Your task to perform on an android device: turn off notifications in google photos Image 0: 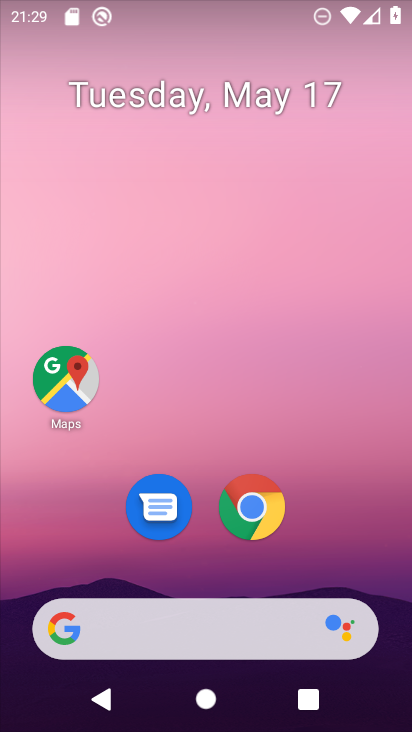
Step 0: drag from (357, 567) to (320, 15)
Your task to perform on an android device: turn off notifications in google photos Image 1: 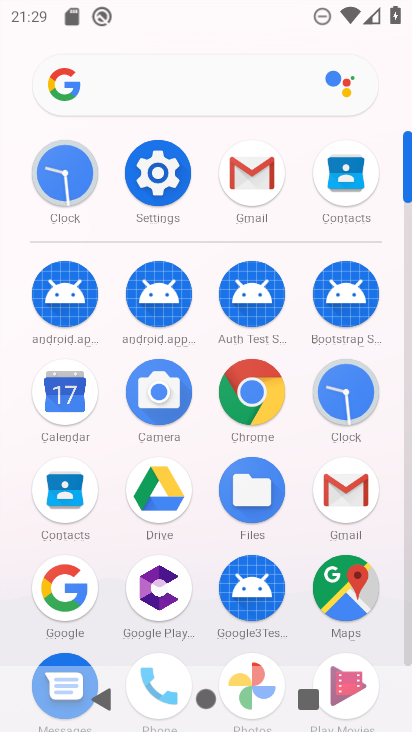
Step 1: drag from (405, 476) to (404, 434)
Your task to perform on an android device: turn off notifications in google photos Image 2: 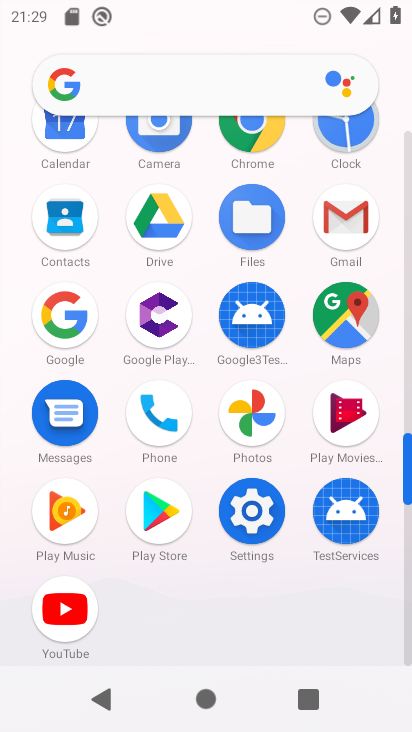
Step 2: click (255, 427)
Your task to perform on an android device: turn off notifications in google photos Image 3: 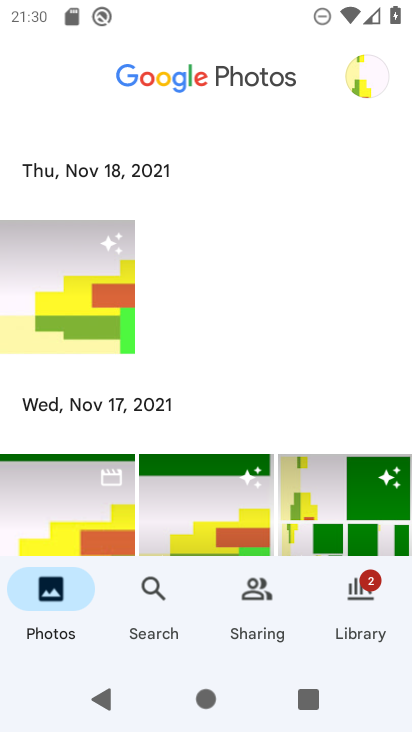
Step 3: click (372, 89)
Your task to perform on an android device: turn off notifications in google photos Image 4: 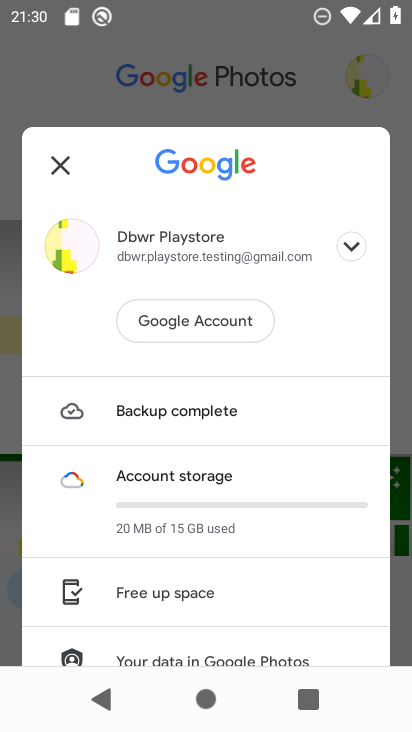
Step 4: drag from (195, 582) to (190, 301)
Your task to perform on an android device: turn off notifications in google photos Image 5: 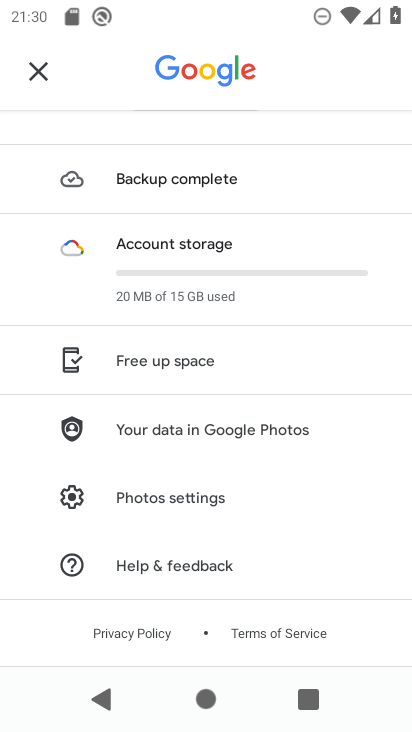
Step 5: click (165, 500)
Your task to perform on an android device: turn off notifications in google photos Image 6: 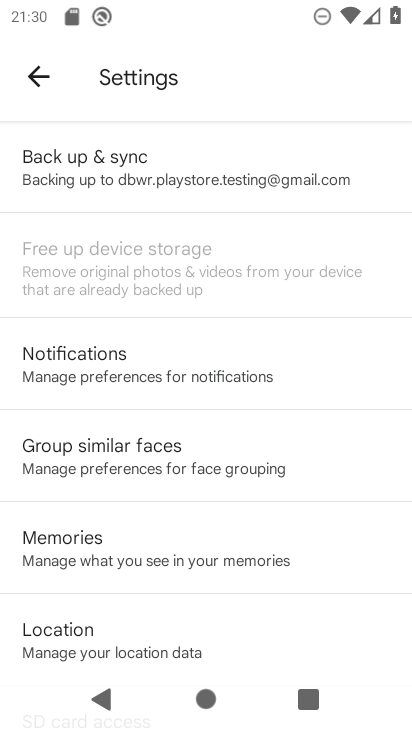
Step 6: click (78, 379)
Your task to perform on an android device: turn off notifications in google photos Image 7: 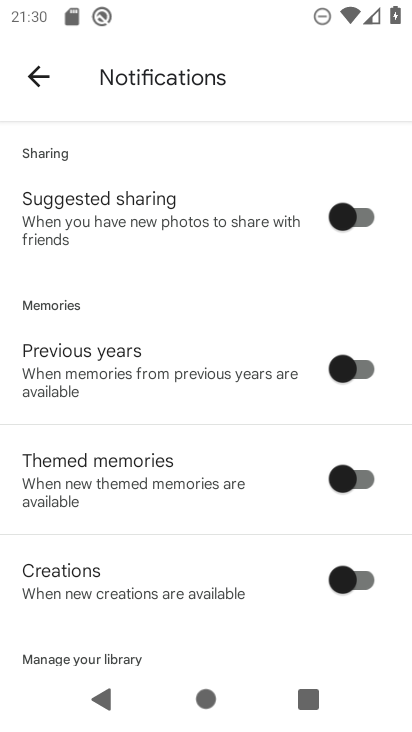
Step 7: drag from (122, 503) to (147, 189)
Your task to perform on an android device: turn off notifications in google photos Image 8: 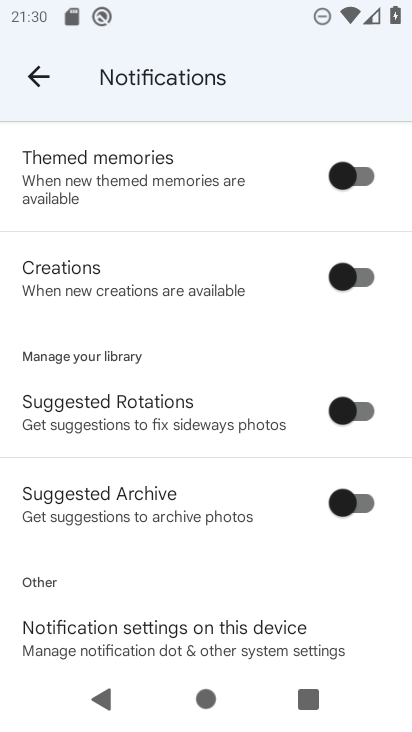
Step 8: drag from (146, 521) to (162, 180)
Your task to perform on an android device: turn off notifications in google photos Image 9: 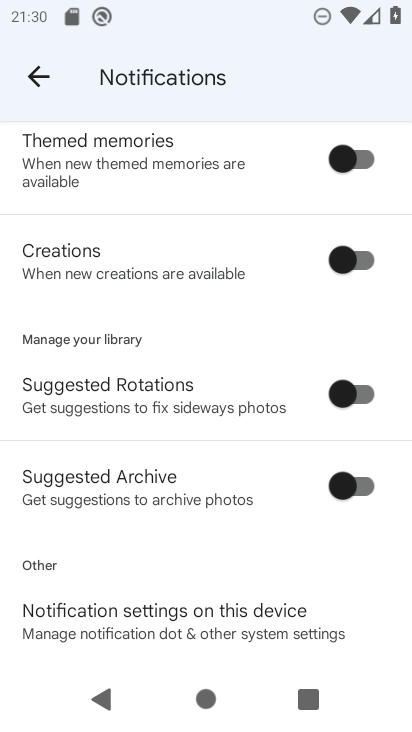
Step 9: click (165, 618)
Your task to perform on an android device: turn off notifications in google photos Image 10: 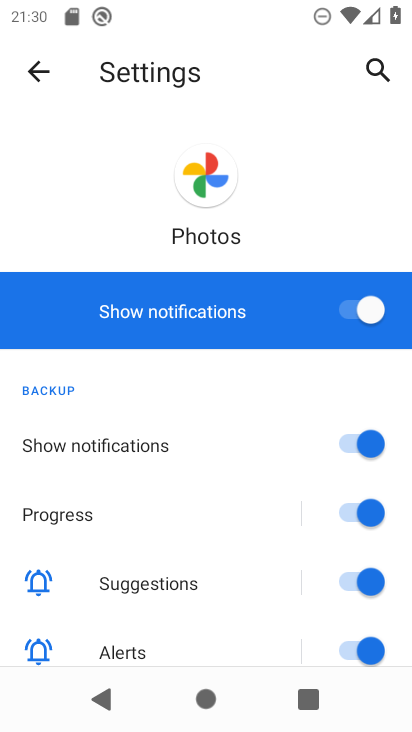
Step 10: click (367, 317)
Your task to perform on an android device: turn off notifications in google photos Image 11: 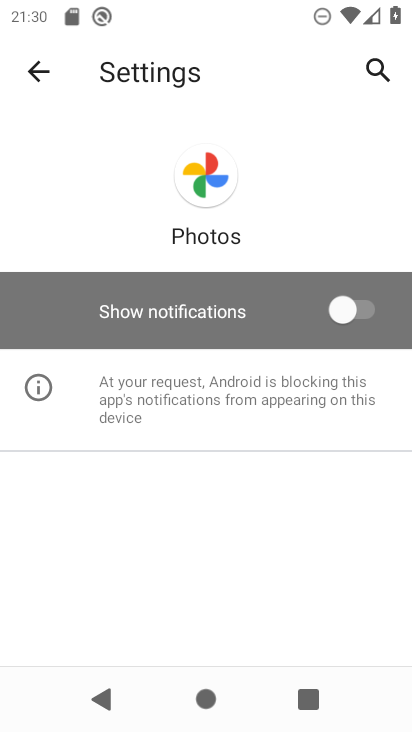
Step 11: task complete